Your task to perform on an android device: Open settings Image 0: 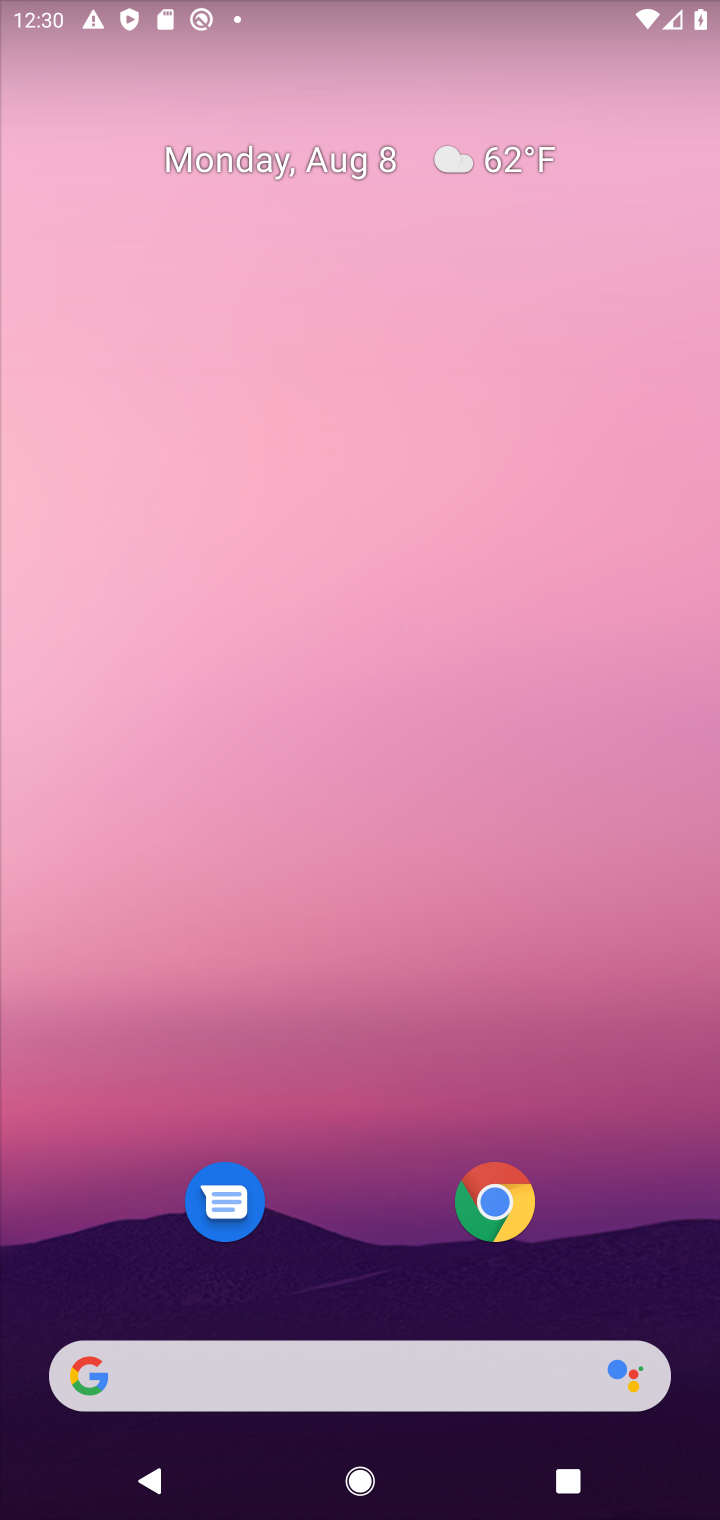
Step 0: drag from (366, 1232) to (365, 39)
Your task to perform on an android device: Open settings Image 1: 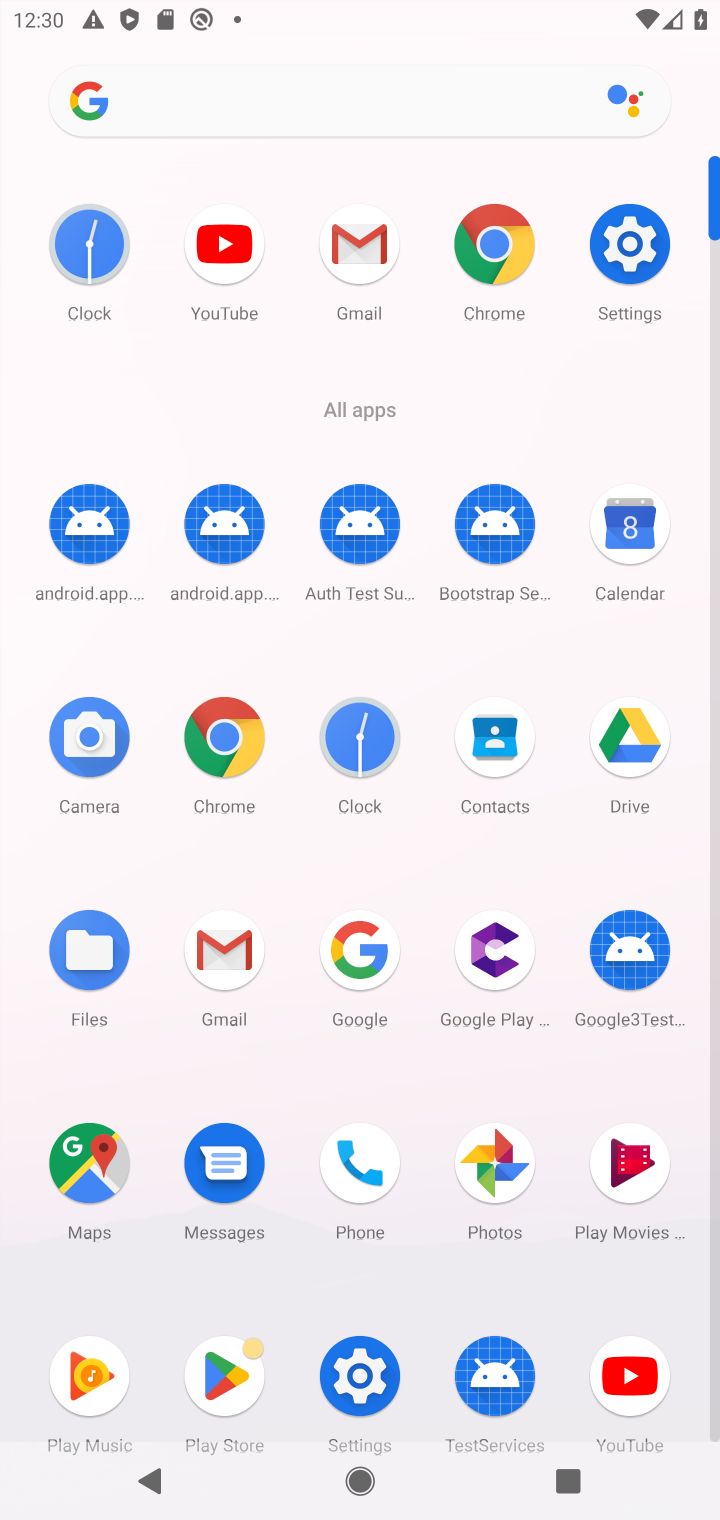
Step 1: click (640, 283)
Your task to perform on an android device: Open settings Image 2: 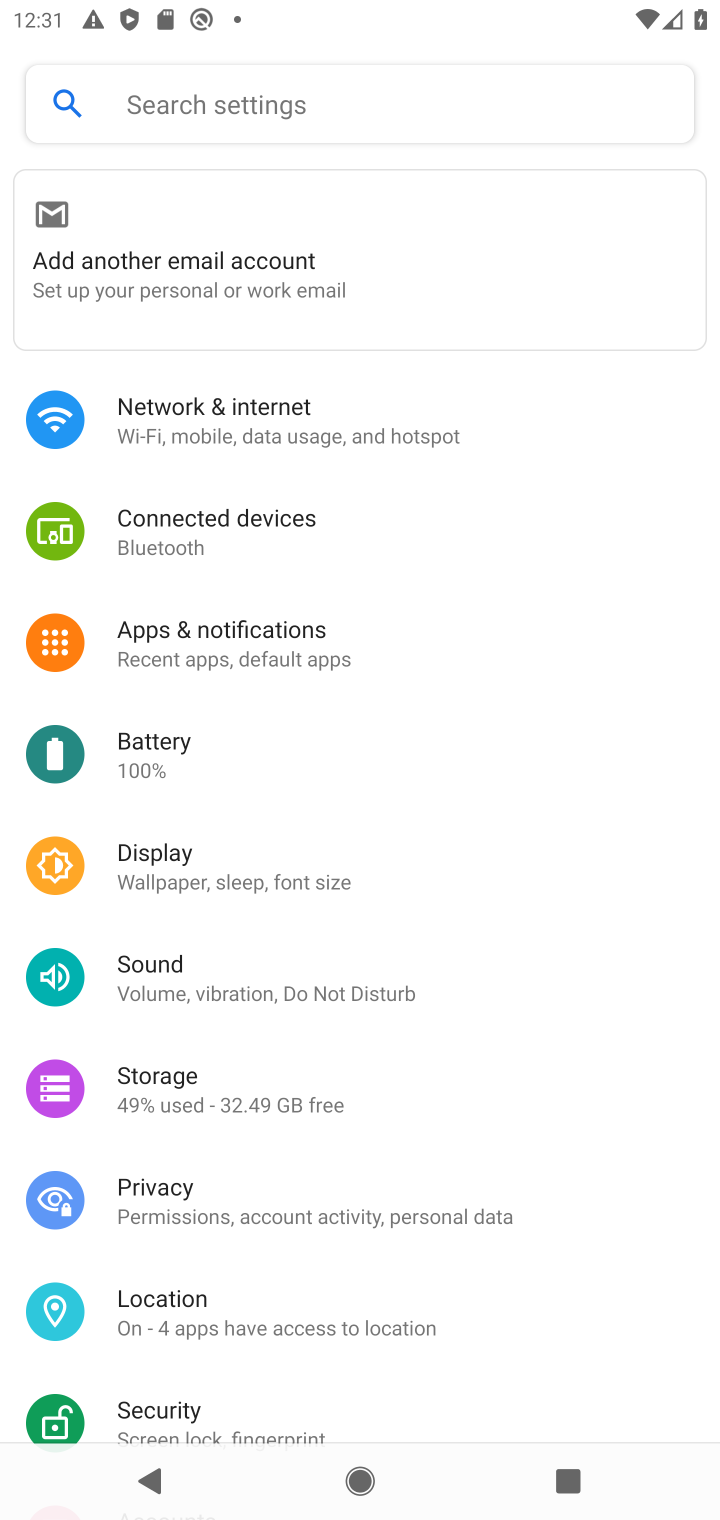
Step 2: task complete